Your task to perform on an android device: Open battery settings Image 0: 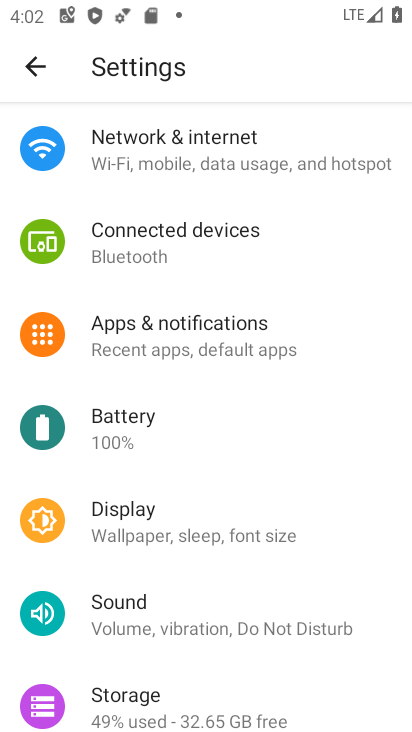
Step 0: click (146, 435)
Your task to perform on an android device: Open battery settings Image 1: 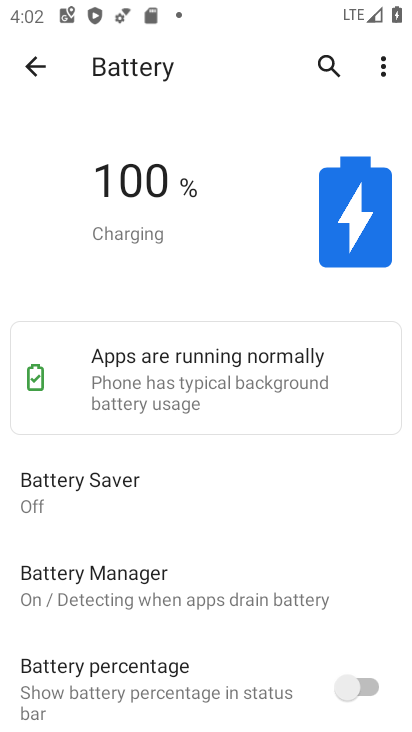
Step 1: task complete